Your task to perform on an android device: turn off airplane mode Image 0: 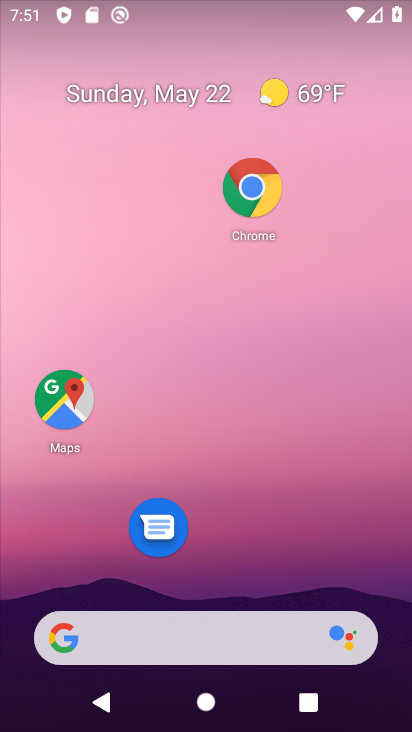
Step 0: press home button
Your task to perform on an android device: turn off airplane mode Image 1: 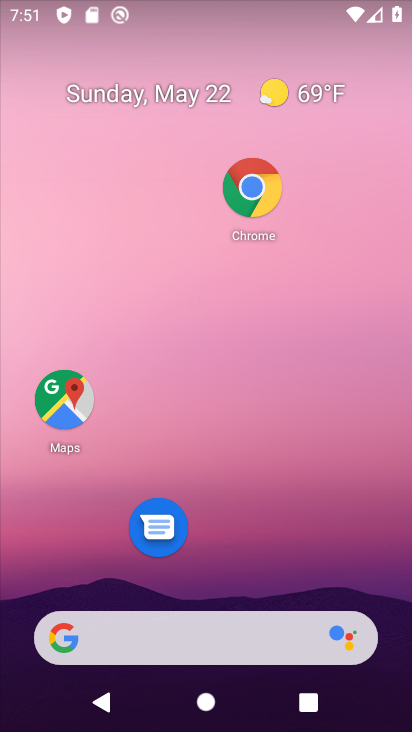
Step 1: task complete